Your task to perform on an android device: Go to Google maps Image 0: 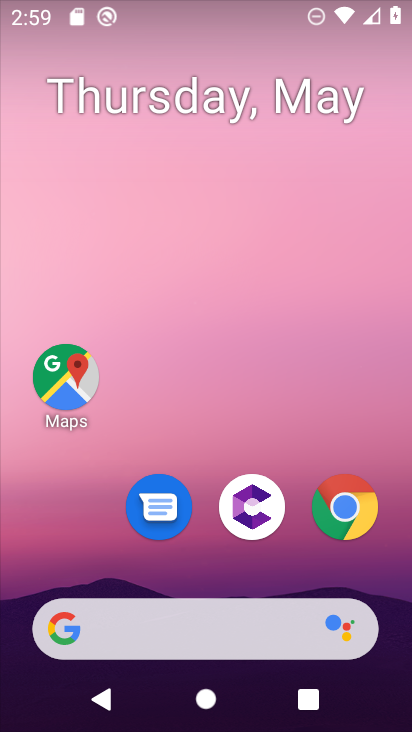
Step 0: click (67, 353)
Your task to perform on an android device: Go to Google maps Image 1: 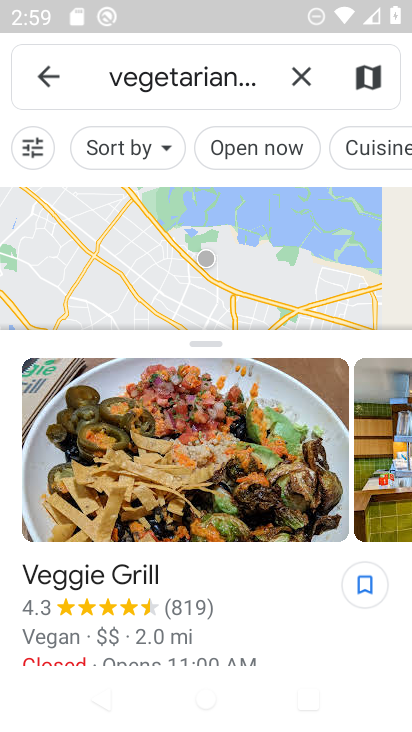
Step 1: click (293, 71)
Your task to perform on an android device: Go to Google maps Image 2: 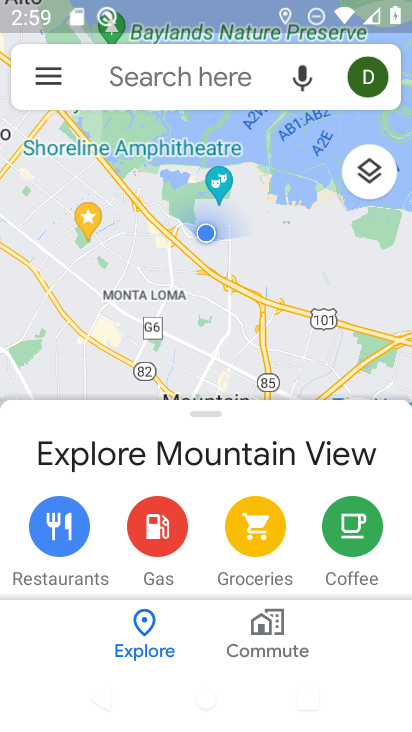
Step 2: task complete